Your task to perform on an android device: Do I have any events this weekend? Image 0: 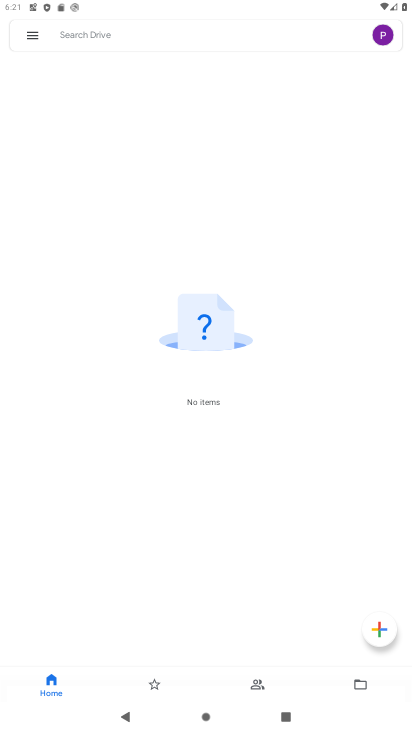
Step 0: press home button
Your task to perform on an android device: Do I have any events this weekend? Image 1: 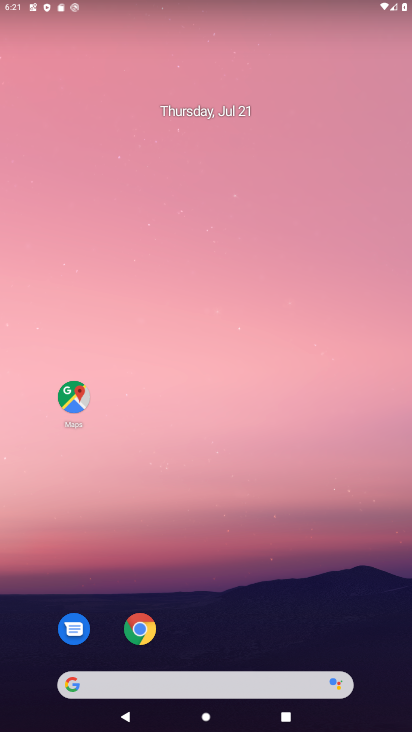
Step 1: drag from (212, 690) to (234, 255)
Your task to perform on an android device: Do I have any events this weekend? Image 2: 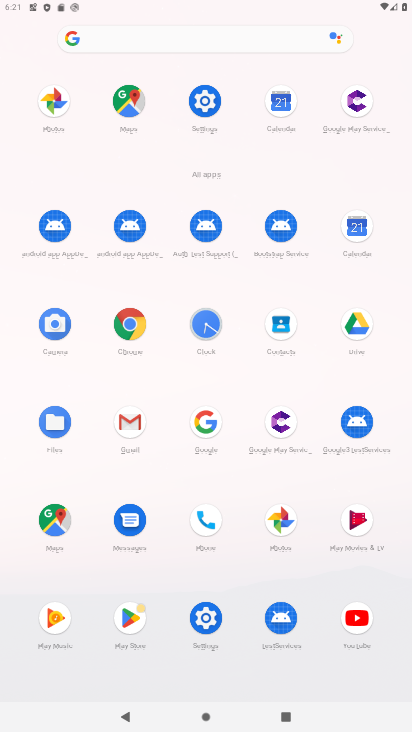
Step 2: click (359, 226)
Your task to perform on an android device: Do I have any events this weekend? Image 3: 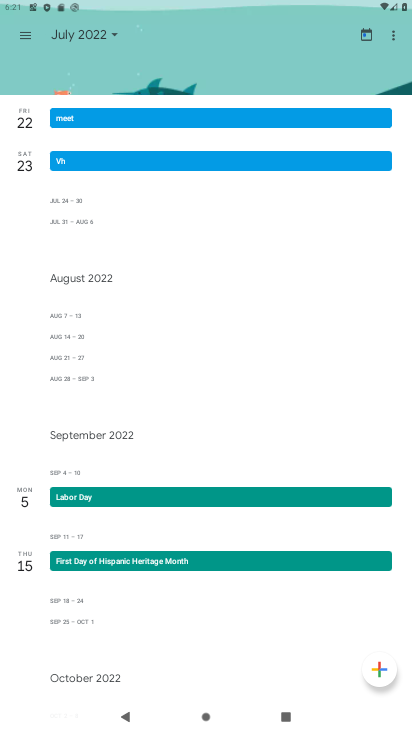
Step 3: click (367, 32)
Your task to perform on an android device: Do I have any events this weekend? Image 4: 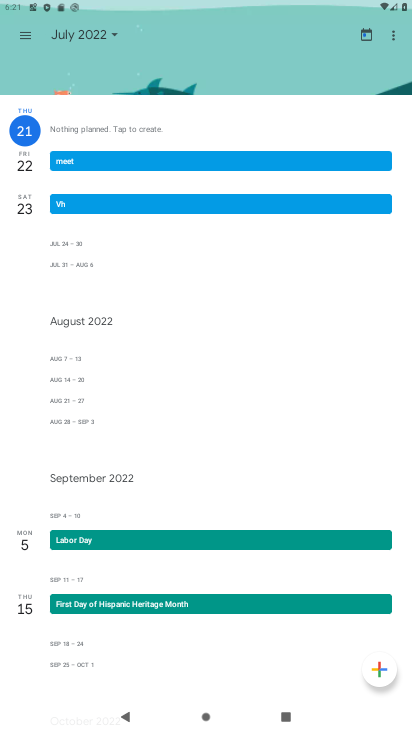
Step 4: click (110, 34)
Your task to perform on an android device: Do I have any events this weekend? Image 5: 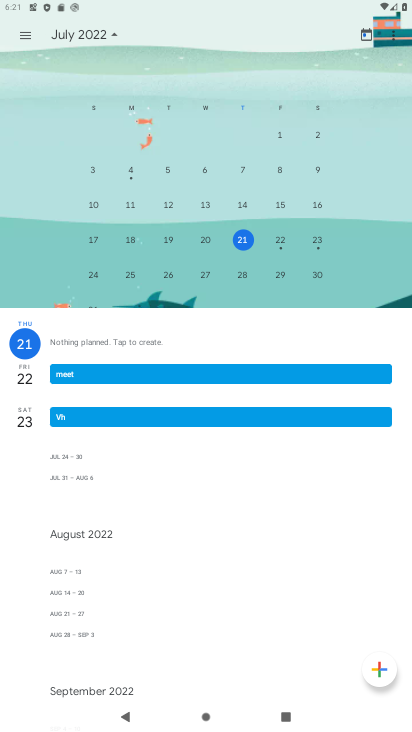
Step 5: click (324, 237)
Your task to perform on an android device: Do I have any events this weekend? Image 6: 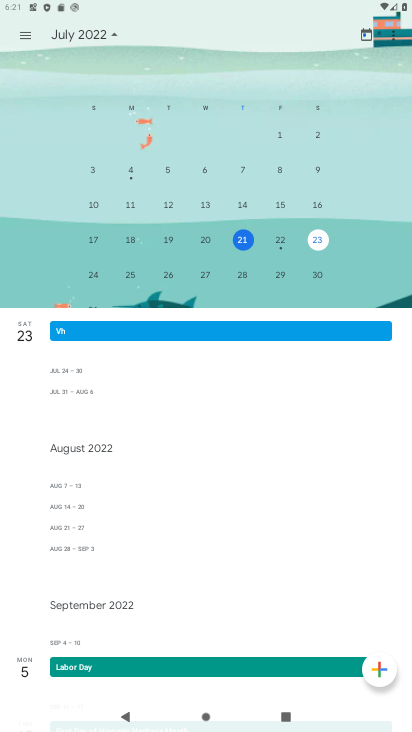
Step 6: click (24, 27)
Your task to perform on an android device: Do I have any events this weekend? Image 7: 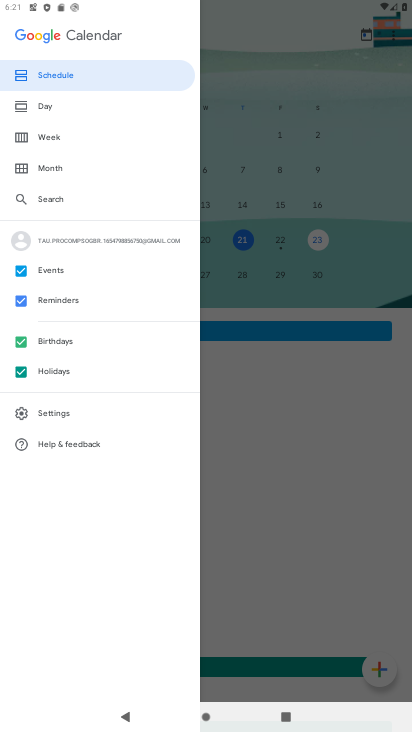
Step 7: click (65, 136)
Your task to perform on an android device: Do I have any events this weekend? Image 8: 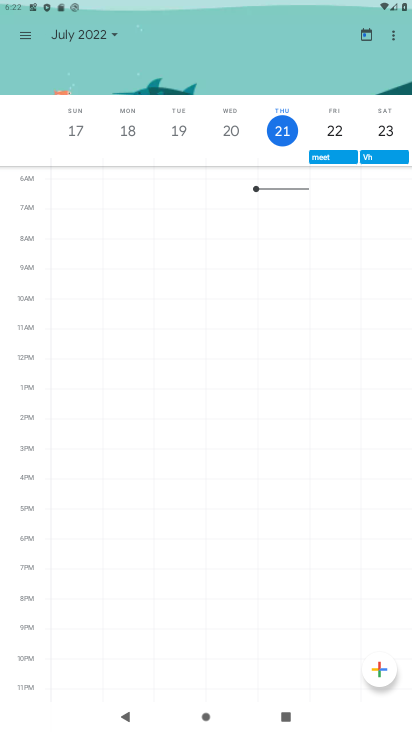
Step 8: task complete